Your task to perform on an android device: turn off location Image 0: 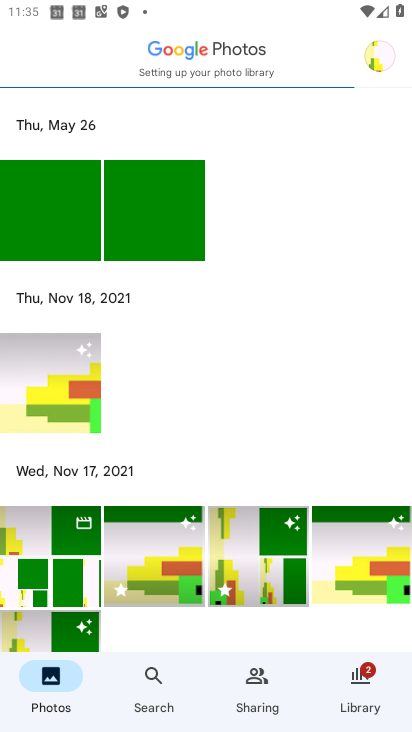
Step 0: press home button
Your task to perform on an android device: turn off location Image 1: 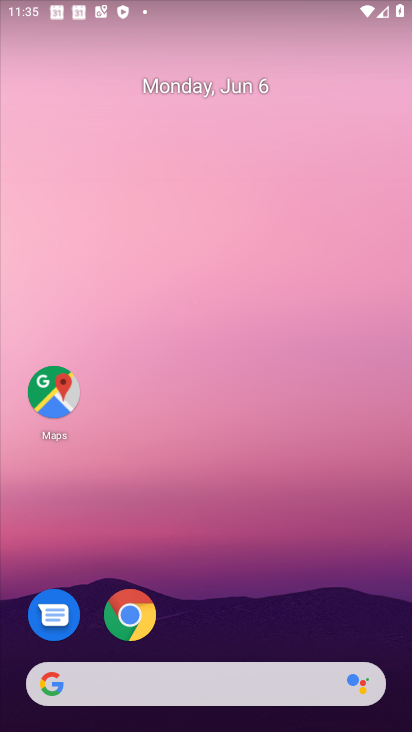
Step 1: drag from (260, 634) to (197, 210)
Your task to perform on an android device: turn off location Image 2: 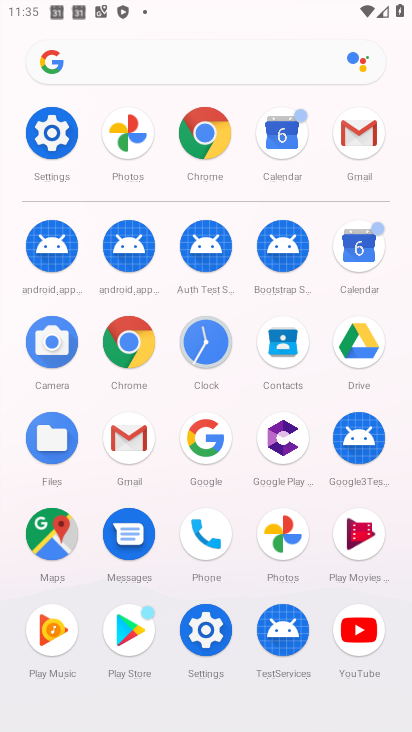
Step 2: click (38, 158)
Your task to perform on an android device: turn off location Image 3: 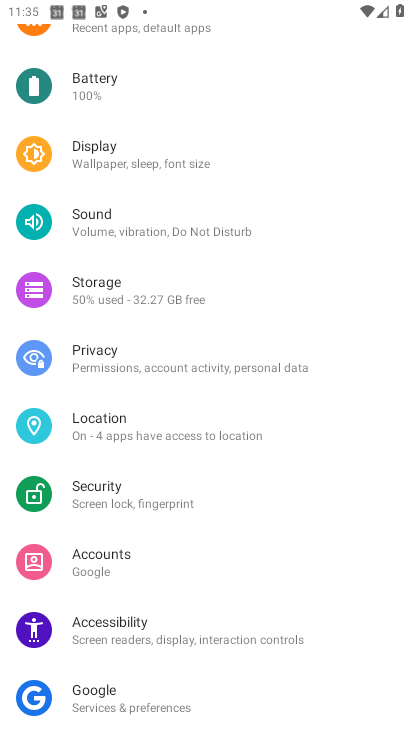
Step 3: click (207, 428)
Your task to perform on an android device: turn off location Image 4: 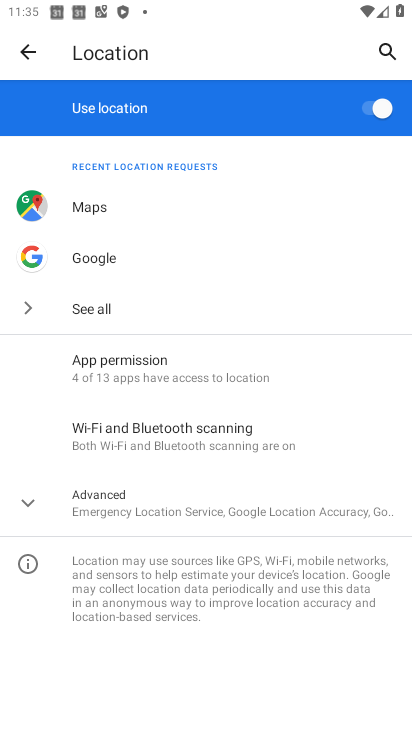
Step 4: click (359, 111)
Your task to perform on an android device: turn off location Image 5: 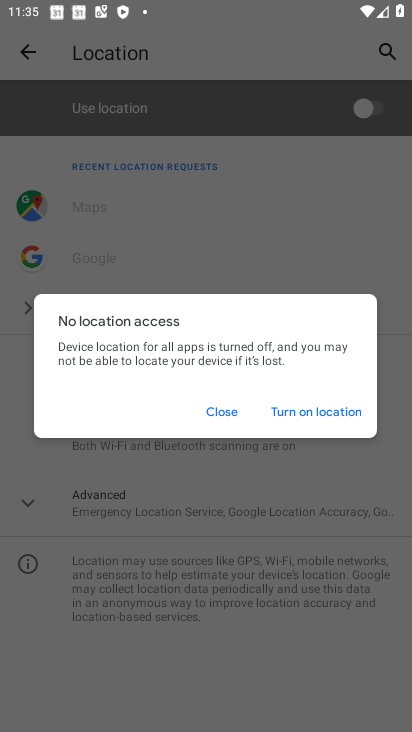
Step 5: task complete